Your task to perform on an android device: Open location settings Image 0: 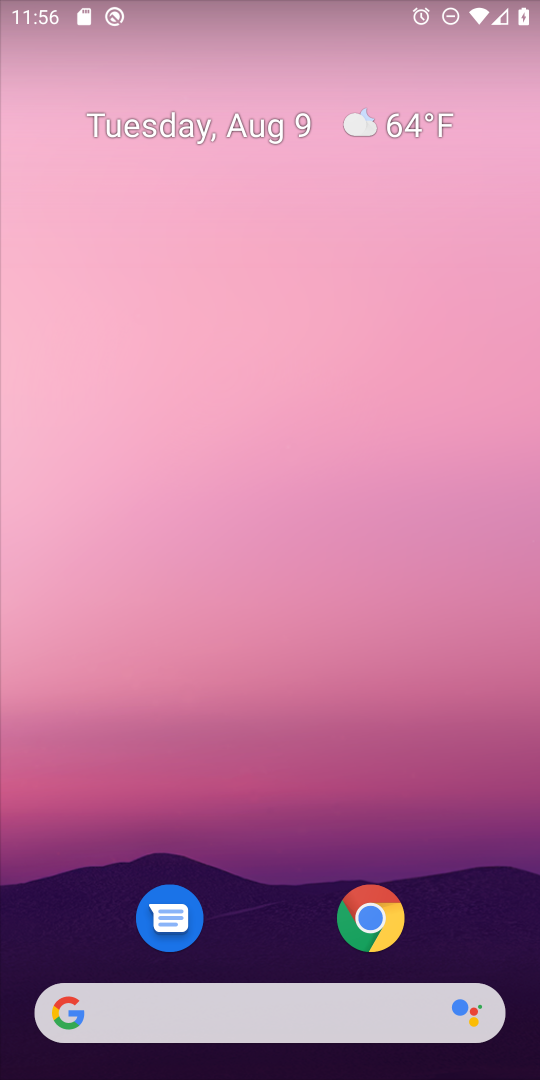
Step 0: drag from (269, 899) to (305, 59)
Your task to perform on an android device: Open location settings Image 1: 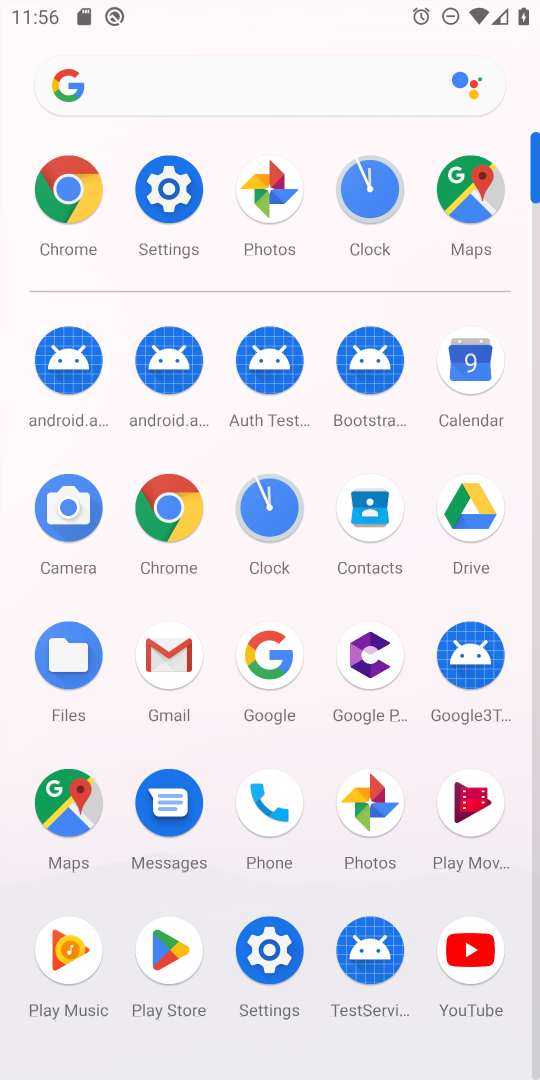
Step 1: click (157, 184)
Your task to perform on an android device: Open location settings Image 2: 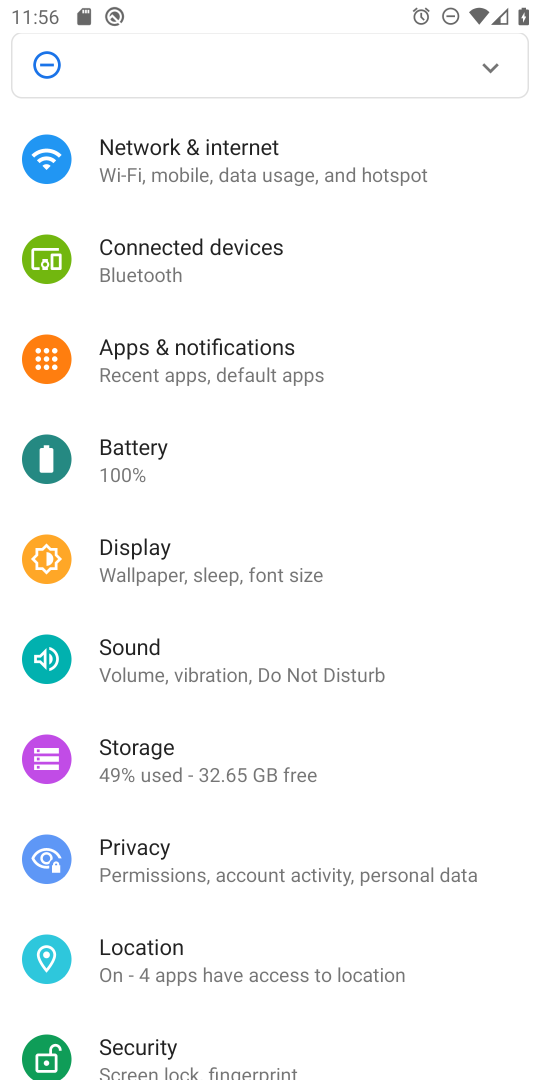
Step 2: click (168, 962)
Your task to perform on an android device: Open location settings Image 3: 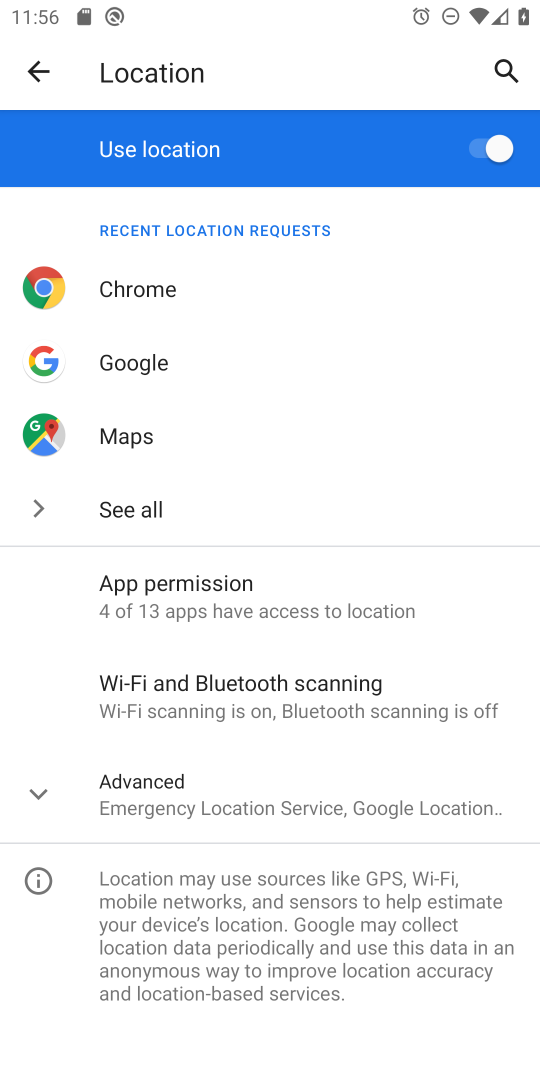
Step 3: task complete